Your task to perform on an android device: Play the last video I watched on Youtube Image 0: 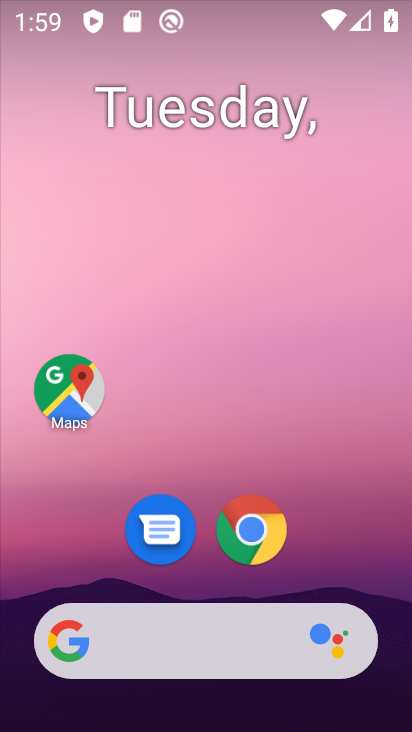
Step 0: drag from (393, 574) to (255, 89)
Your task to perform on an android device: Play the last video I watched on Youtube Image 1: 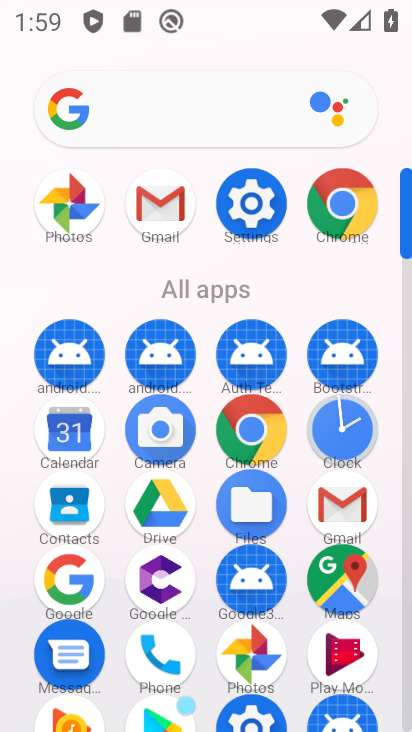
Step 1: click (409, 696)
Your task to perform on an android device: Play the last video I watched on Youtube Image 2: 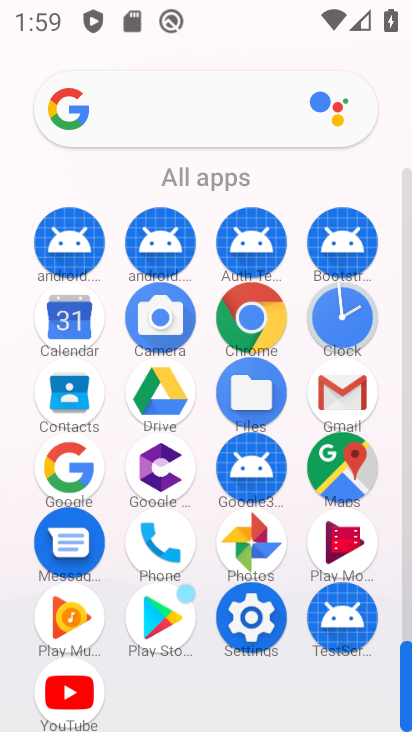
Step 2: click (88, 683)
Your task to perform on an android device: Play the last video I watched on Youtube Image 3: 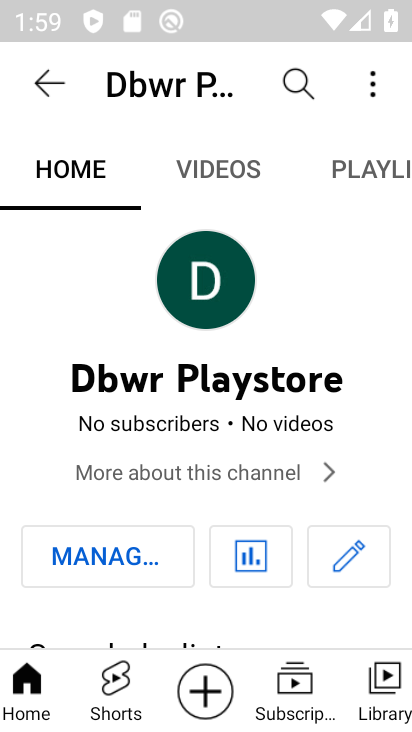
Step 3: click (384, 704)
Your task to perform on an android device: Play the last video I watched on Youtube Image 4: 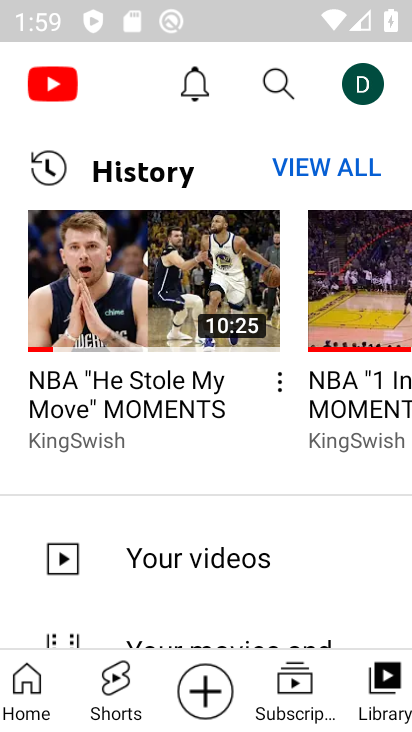
Step 4: click (142, 324)
Your task to perform on an android device: Play the last video I watched on Youtube Image 5: 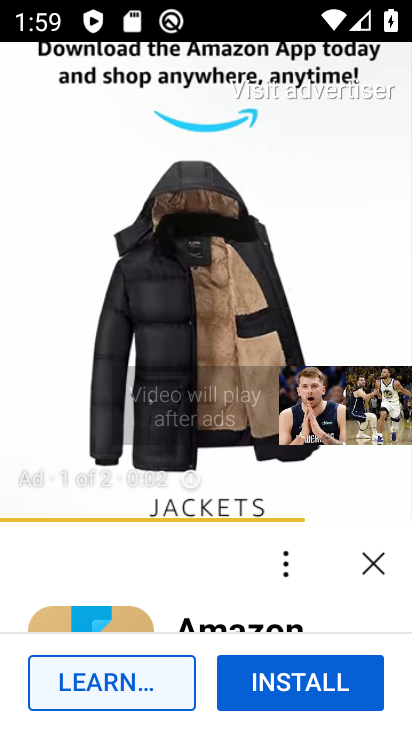
Step 5: task complete